Your task to perform on an android device: change timer sound Image 0: 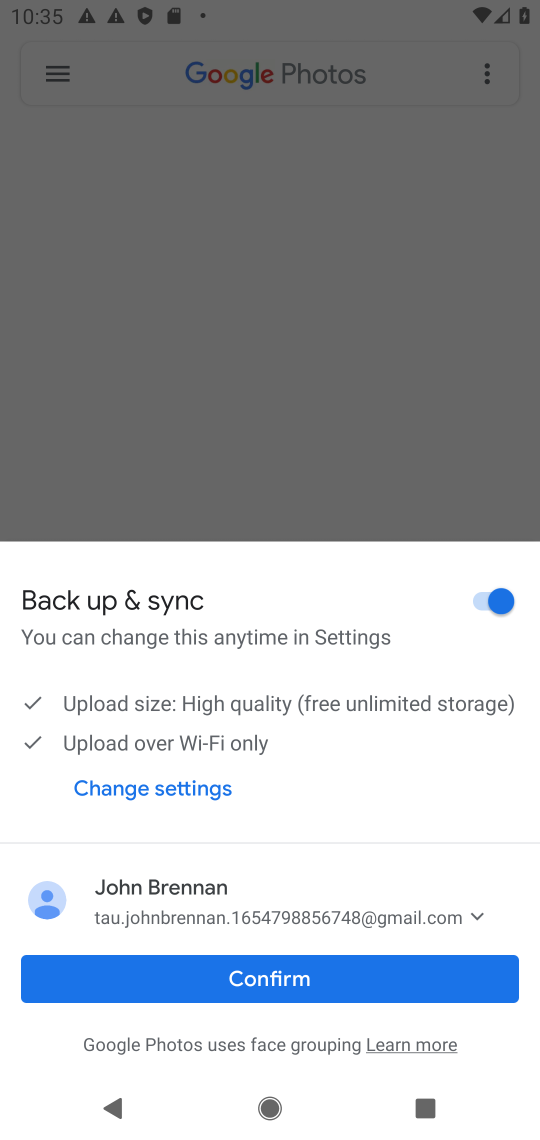
Step 0: press back button
Your task to perform on an android device: change timer sound Image 1: 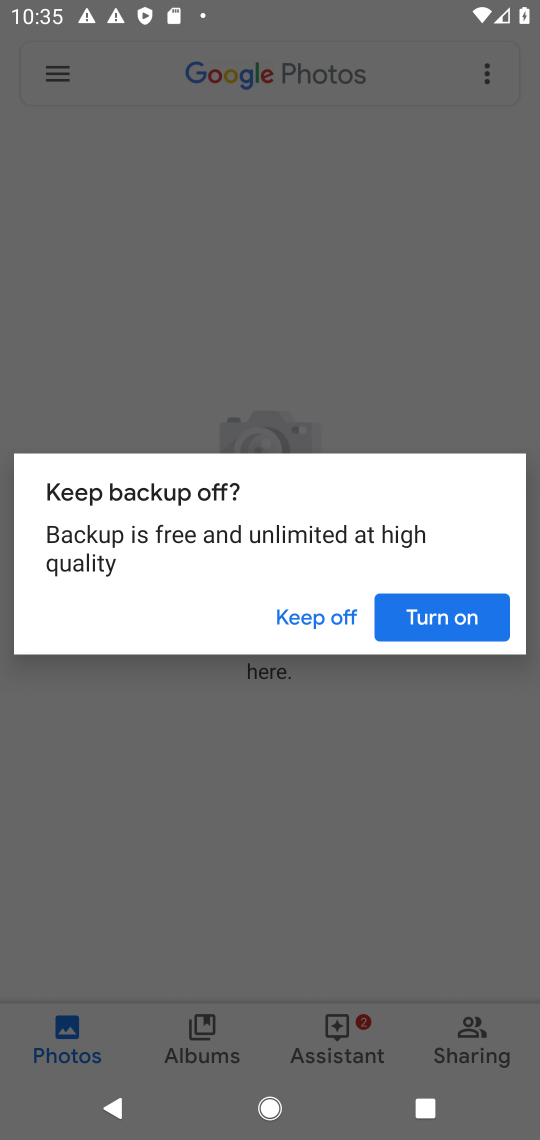
Step 1: press home button
Your task to perform on an android device: change timer sound Image 2: 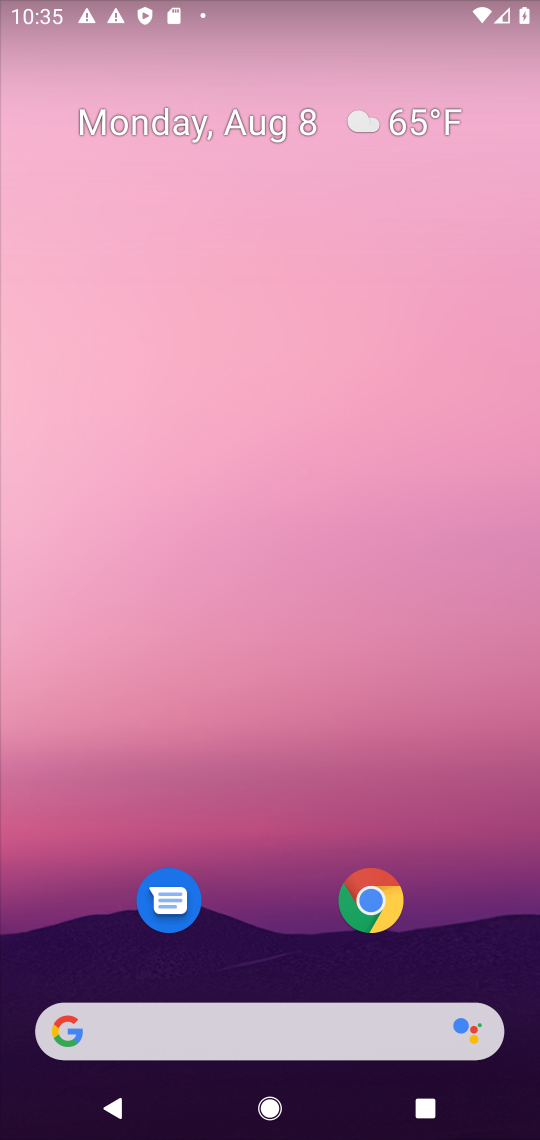
Step 2: drag from (244, 904) to (244, 310)
Your task to perform on an android device: change timer sound Image 3: 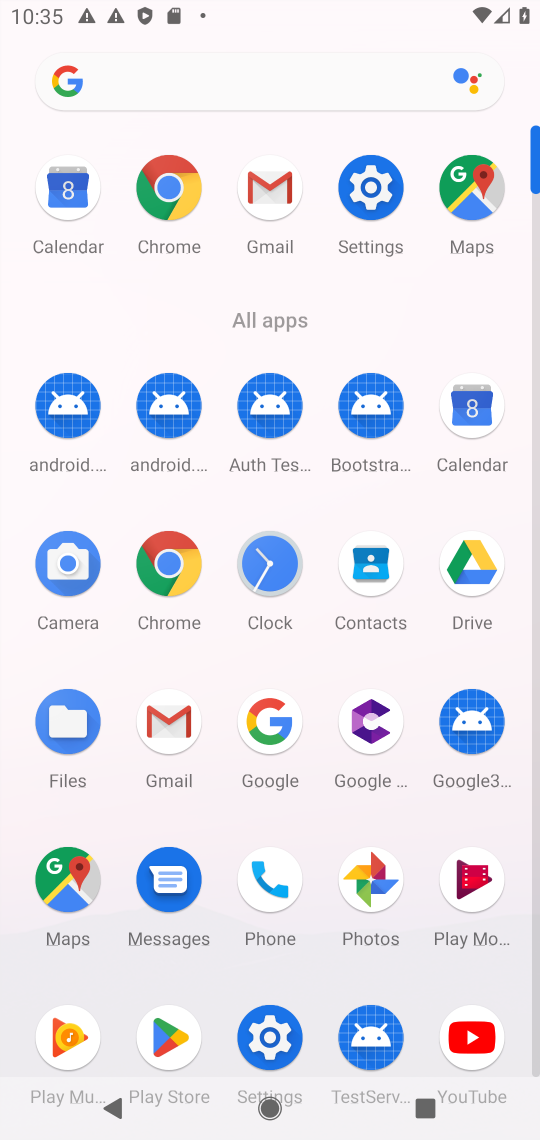
Step 3: click (374, 187)
Your task to perform on an android device: change timer sound Image 4: 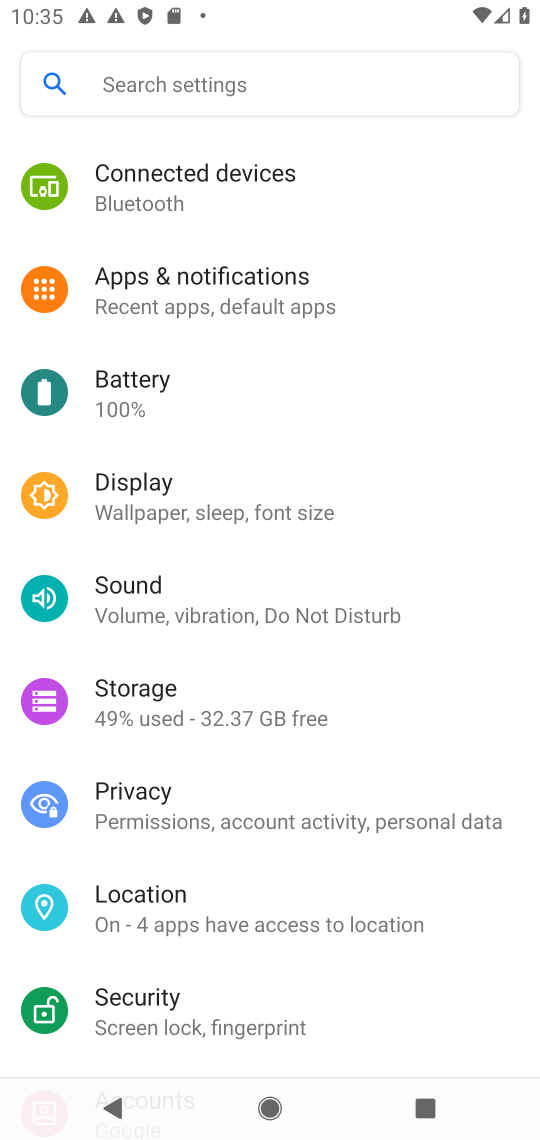
Step 4: drag from (150, 909) to (195, 501)
Your task to perform on an android device: change timer sound Image 5: 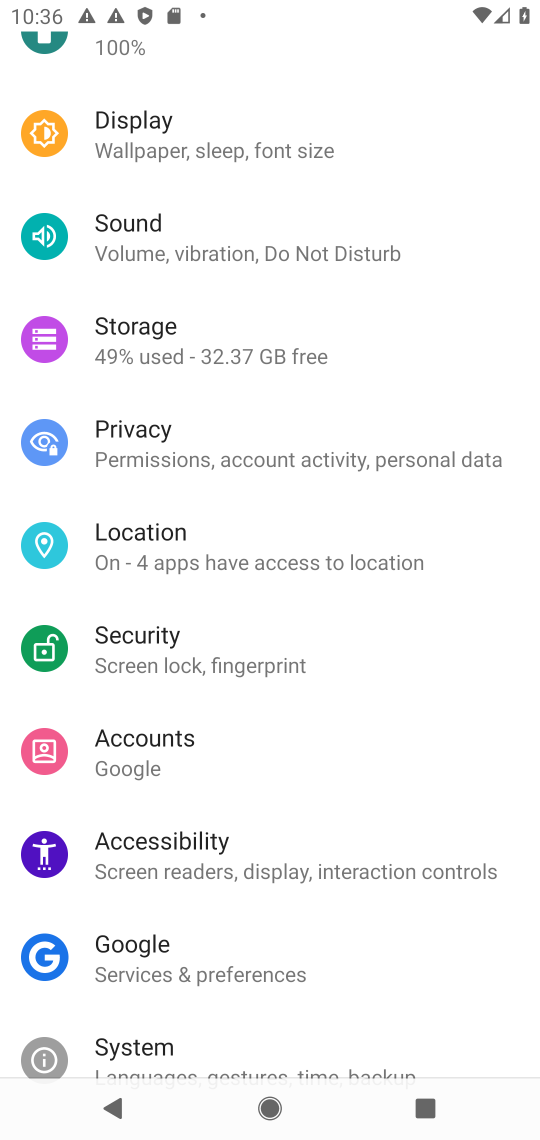
Step 5: drag from (236, 464) to (212, 1009)
Your task to perform on an android device: change timer sound Image 6: 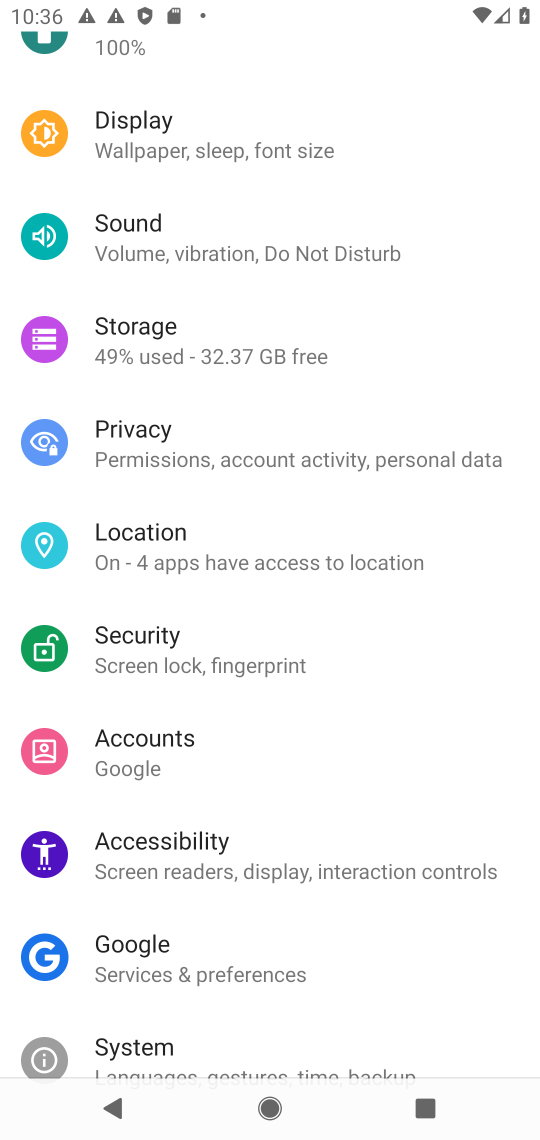
Step 6: drag from (195, 436) to (254, 624)
Your task to perform on an android device: change timer sound Image 7: 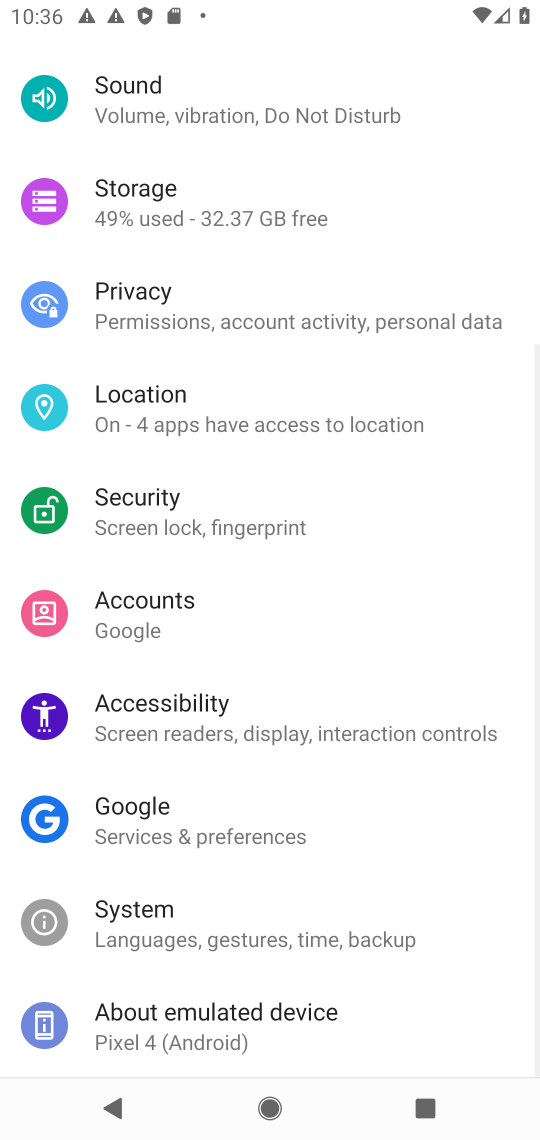
Step 7: drag from (232, 227) to (168, 1063)
Your task to perform on an android device: change timer sound Image 8: 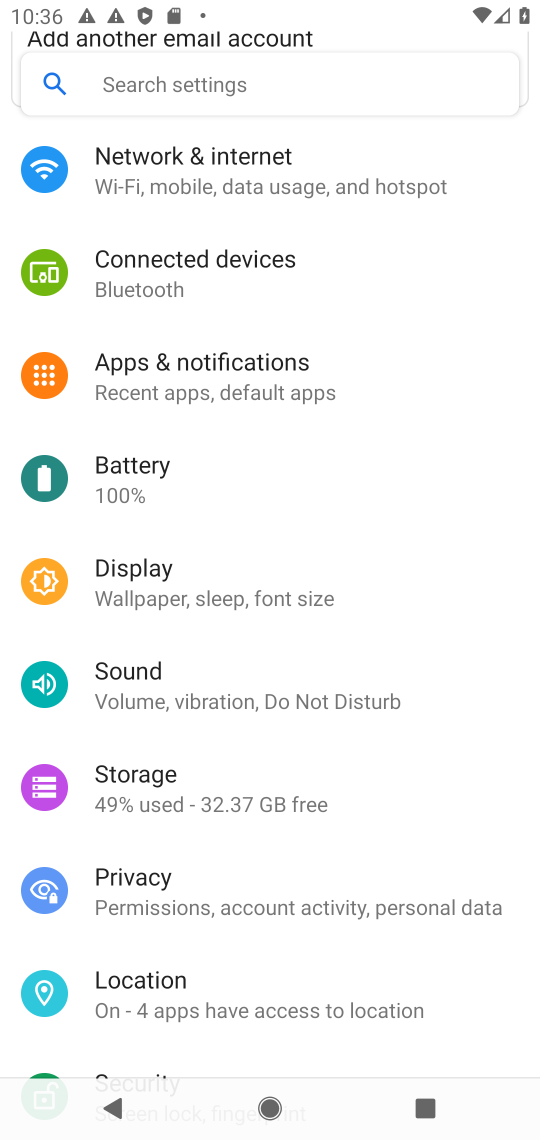
Step 8: press back button
Your task to perform on an android device: change timer sound Image 9: 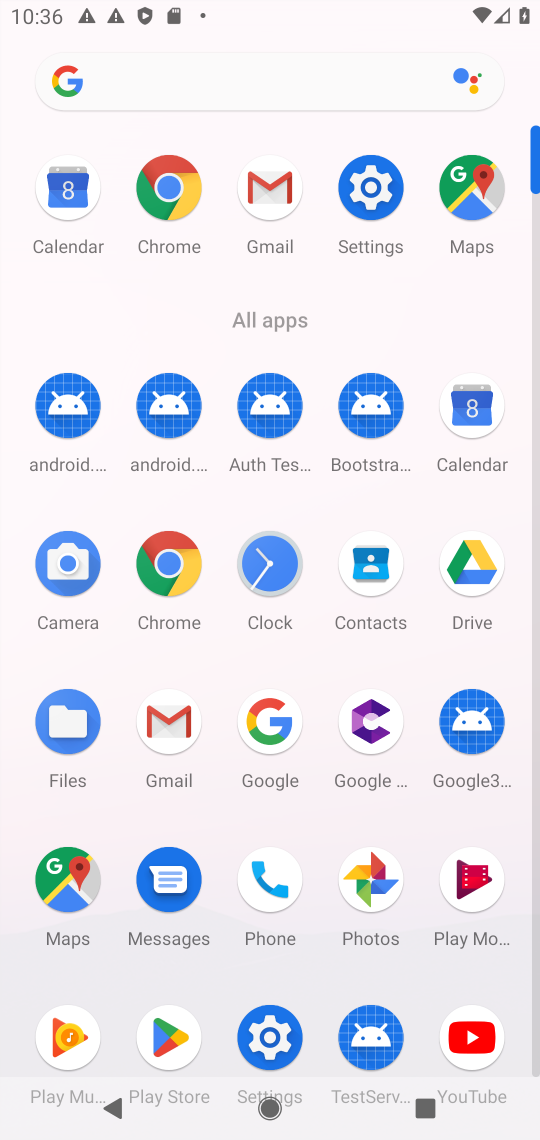
Step 9: click (273, 598)
Your task to perform on an android device: change timer sound Image 10: 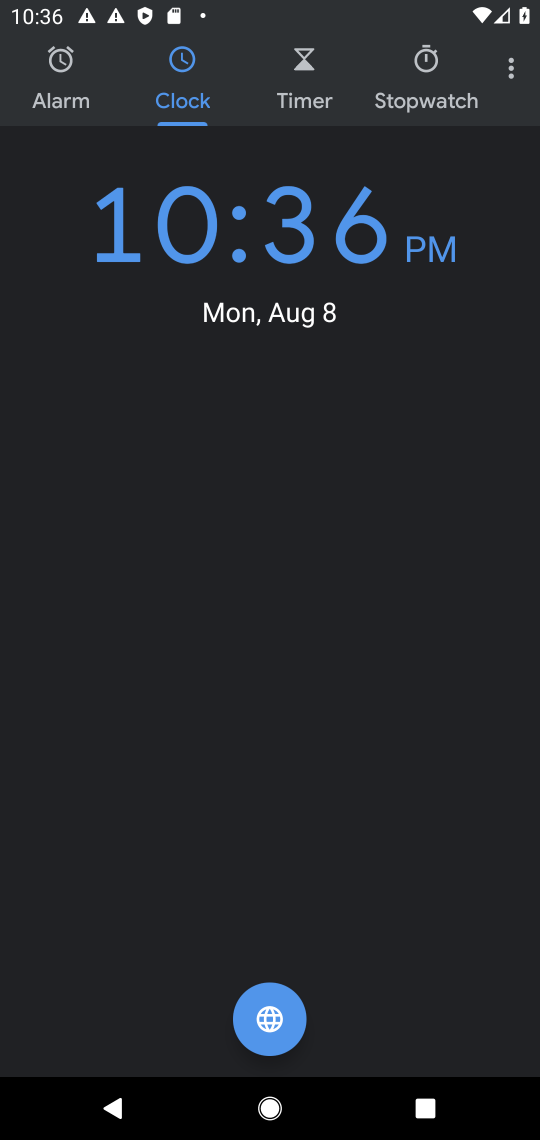
Step 10: click (515, 66)
Your task to perform on an android device: change timer sound Image 11: 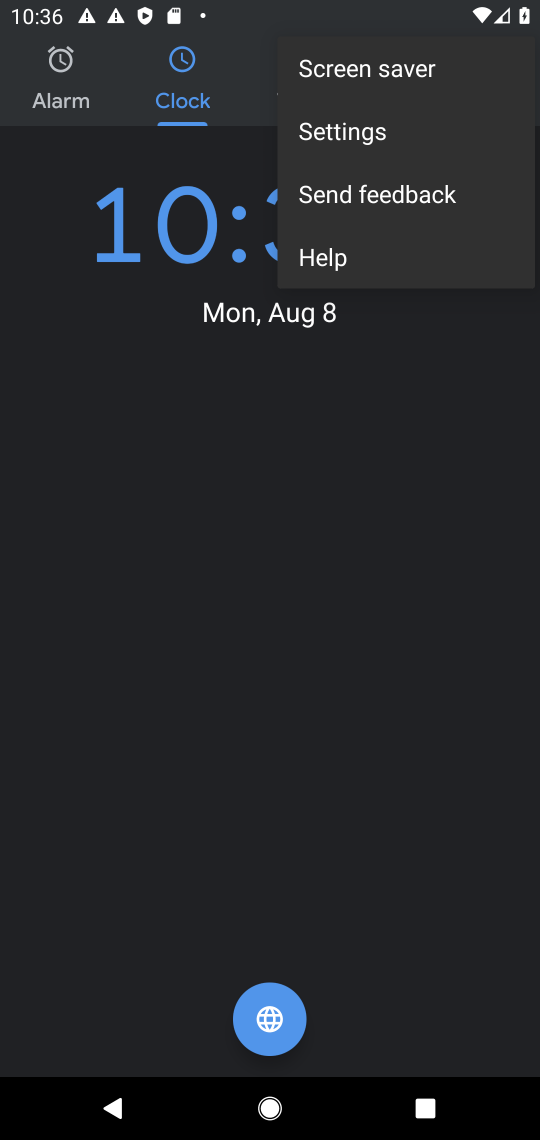
Step 11: click (345, 134)
Your task to perform on an android device: change timer sound Image 12: 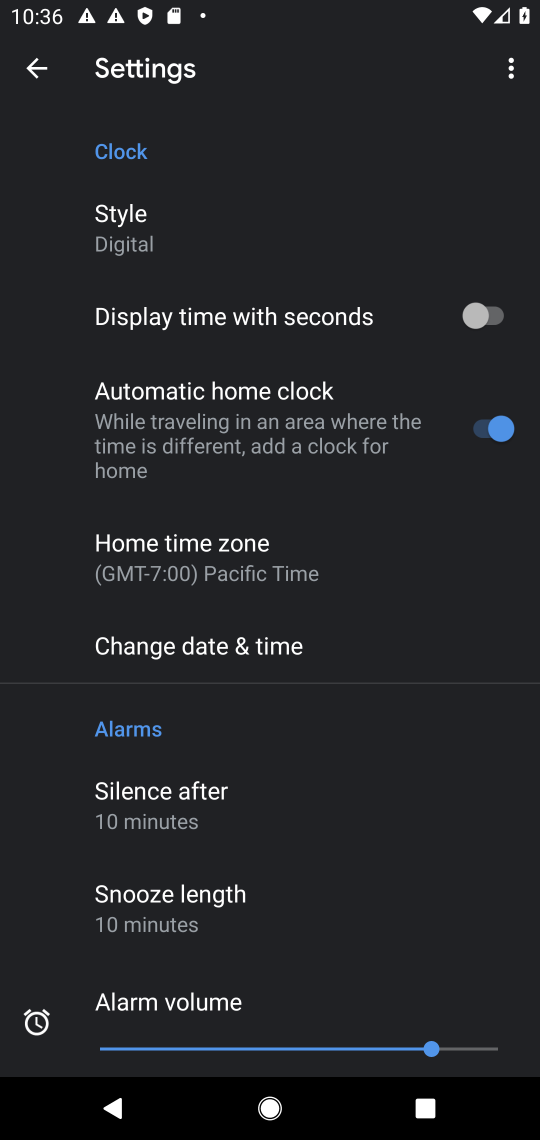
Step 12: drag from (221, 812) to (207, 345)
Your task to perform on an android device: change timer sound Image 13: 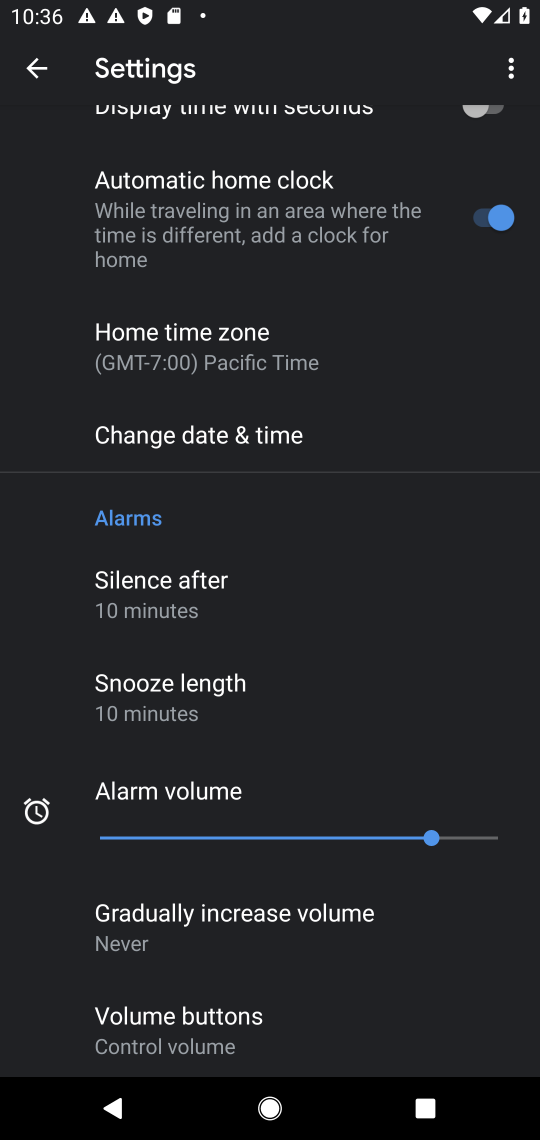
Step 13: drag from (331, 670) to (229, 125)
Your task to perform on an android device: change timer sound Image 14: 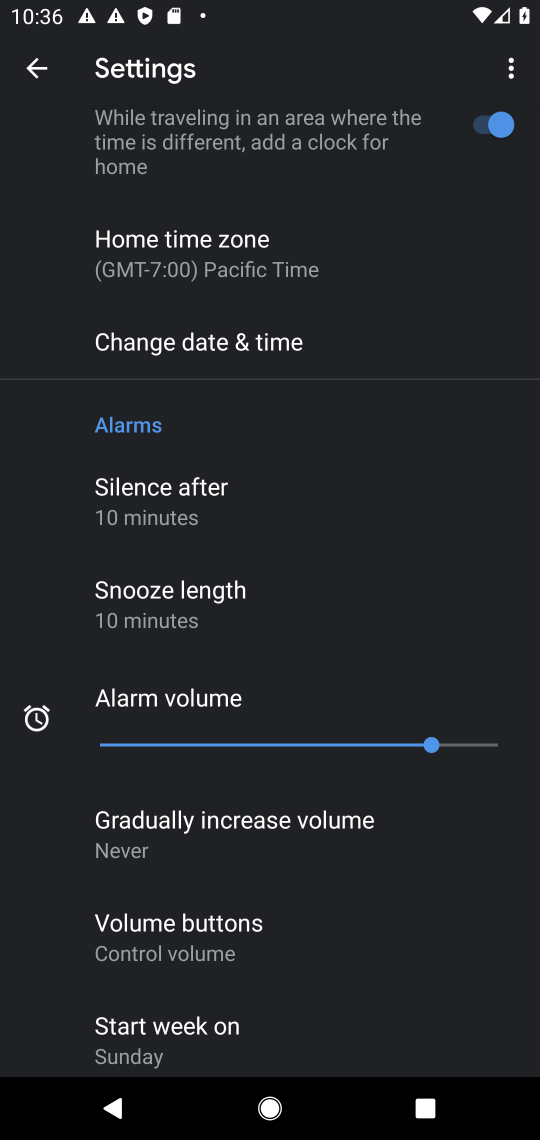
Step 14: drag from (175, 931) to (184, 46)
Your task to perform on an android device: change timer sound Image 15: 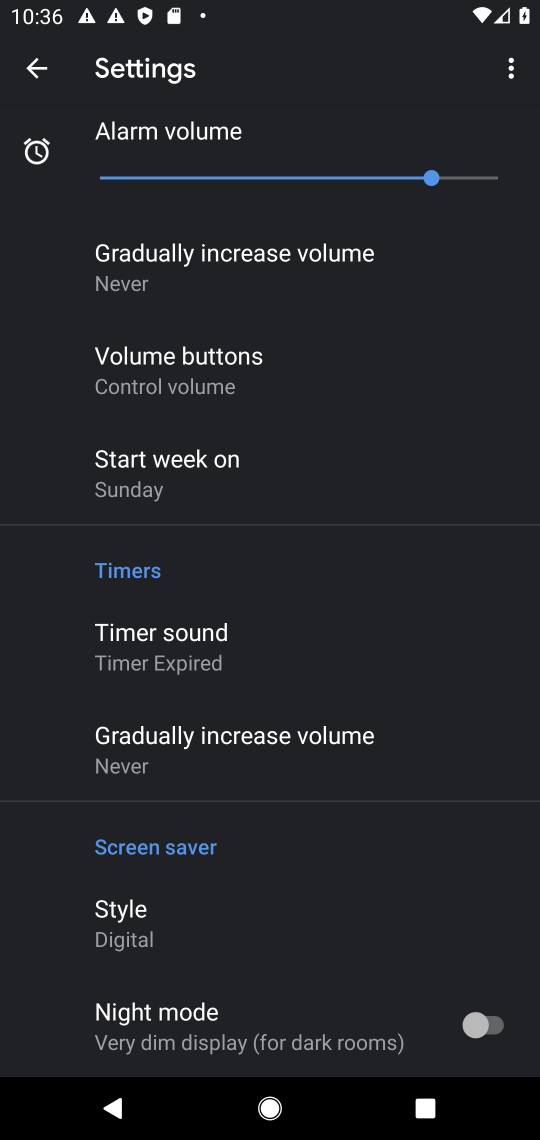
Step 15: click (132, 634)
Your task to perform on an android device: change timer sound Image 16: 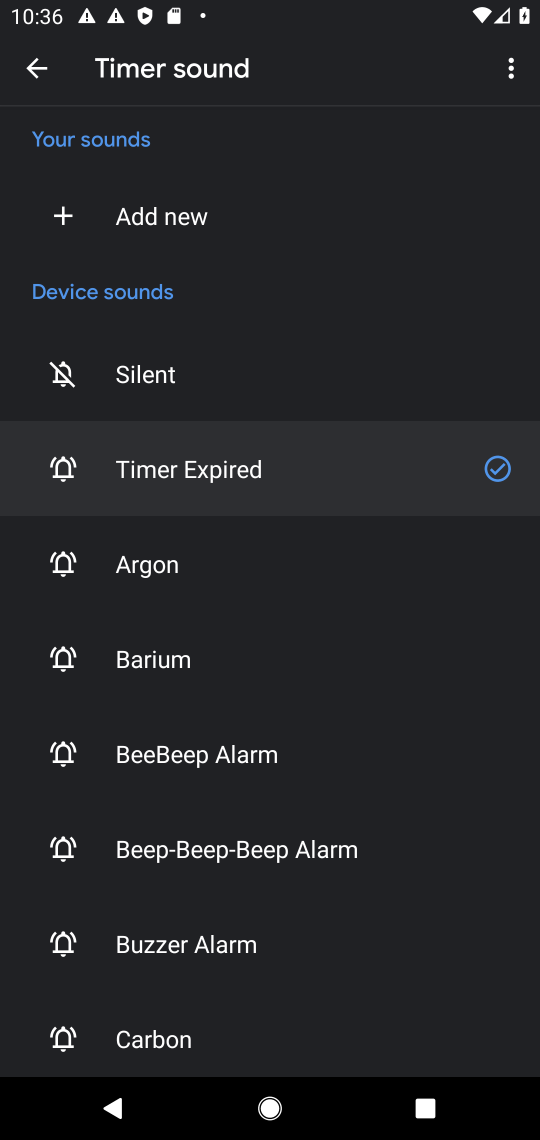
Step 16: click (63, 673)
Your task to perform on an android device: change timer sound Image 17: 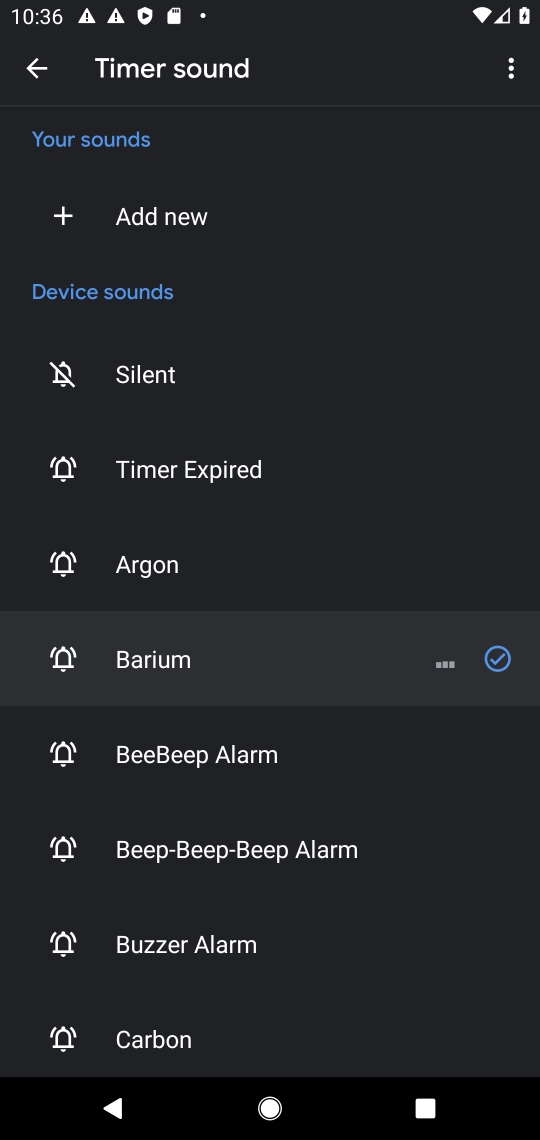
Step 17: task complete